Your task to perform on an android device: Open battery settings Image 0: 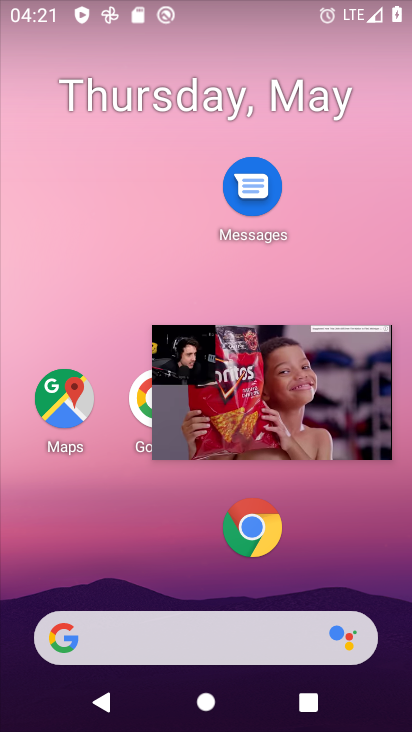
Step 0: drag from (175, 557) to (178, 194)
Your task to perform on an android device: Open battery settings Image 1: 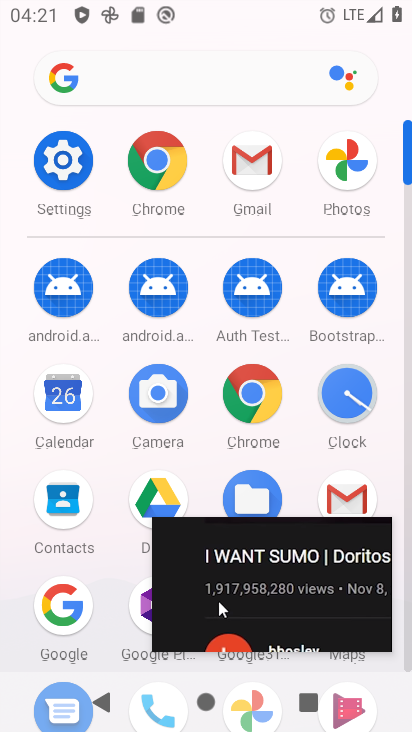
Step 1: drag from (310, 557) to (205, 730)
Your task to perform on an android device: Open battery settings Image 2: 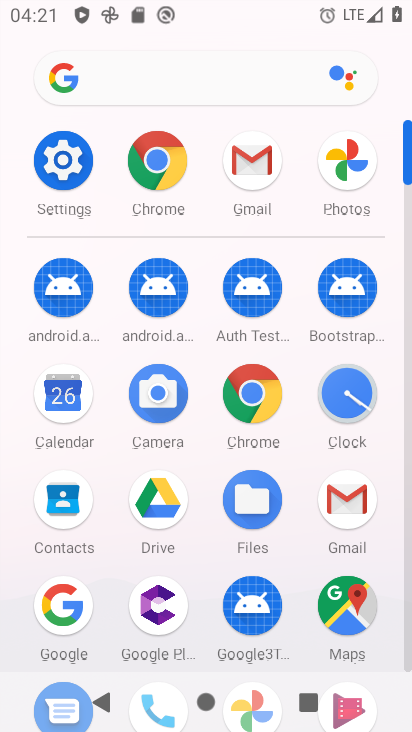
Step 2: click (59, 153)
Your task to perform on an android device: Open battery settings Image 3: 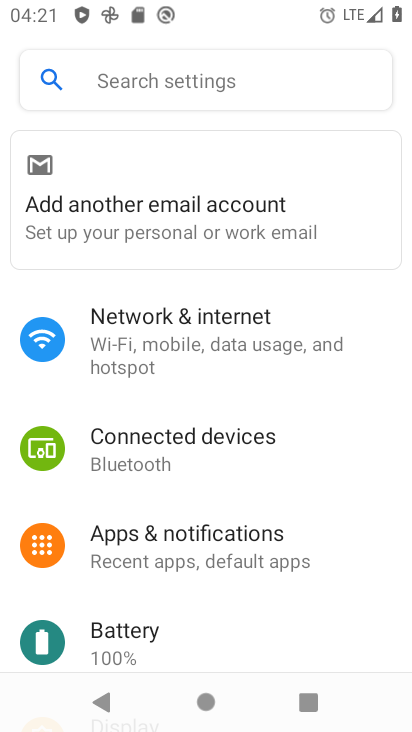
Step 3: click (161, 616)
Your task to perform on an android device: Open battery settings Image 4: 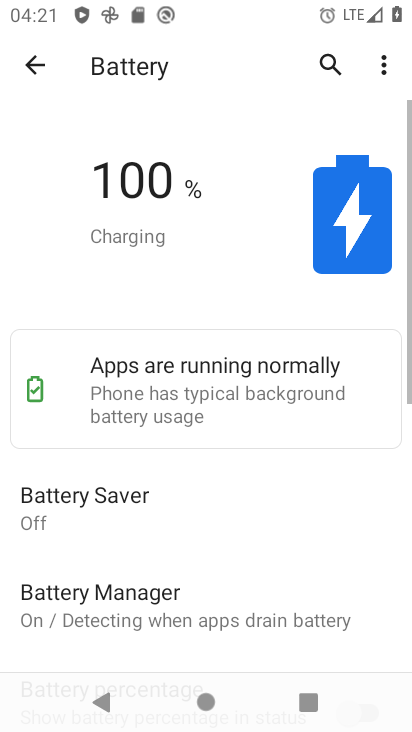
Step 4: task complete